Your task to perform on an android device: Add acer nitro to the cart on bestbuy, then select checkout. Image 0: 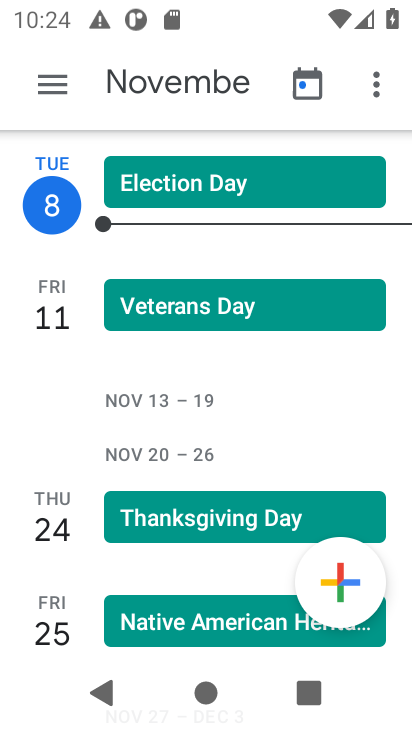
Step 0: press home button
Your task to perform on an android device: Add acer nitro to the cart on bestbuy, then select checkout. Image 1: 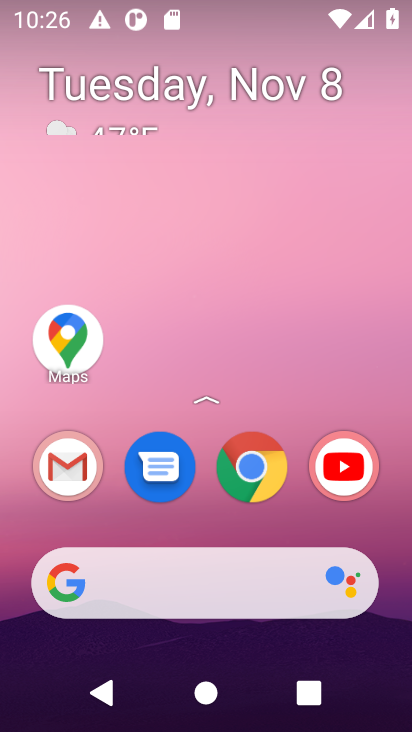
Step 1: click (144, 584)
Your task to perform on an android device: Add acer nitro to the cart on bestbuy, then select checkout. Image 2: 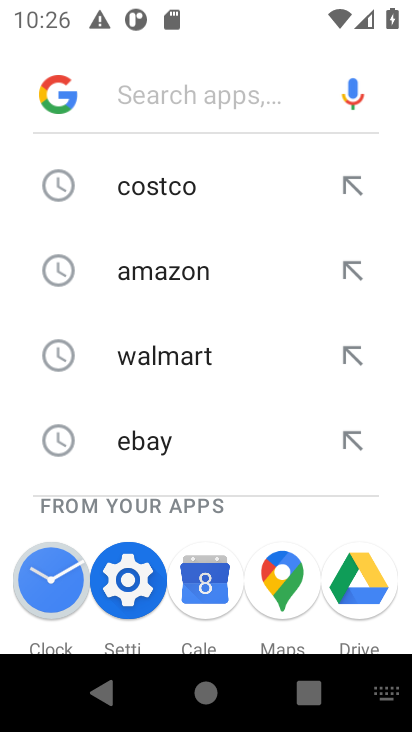
Step 2: click (140, 212)
Your task to perform on an android device: Add acer nitro to the cart on bestbuy, then select checkout. Image 3: 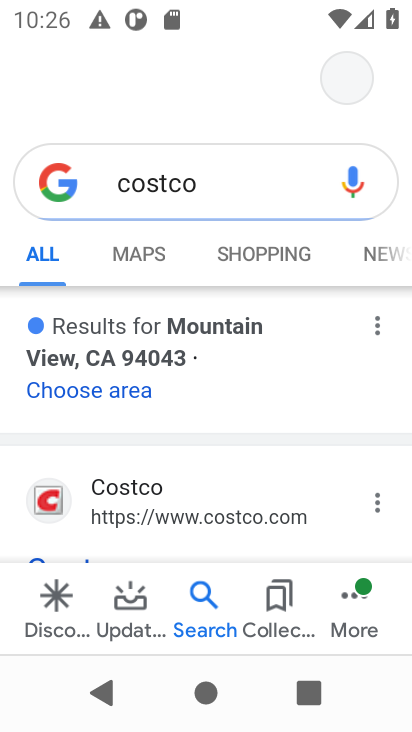
Step 3: task complete